Your task to perform on an android device: Open settings on Google Maps Image 0: 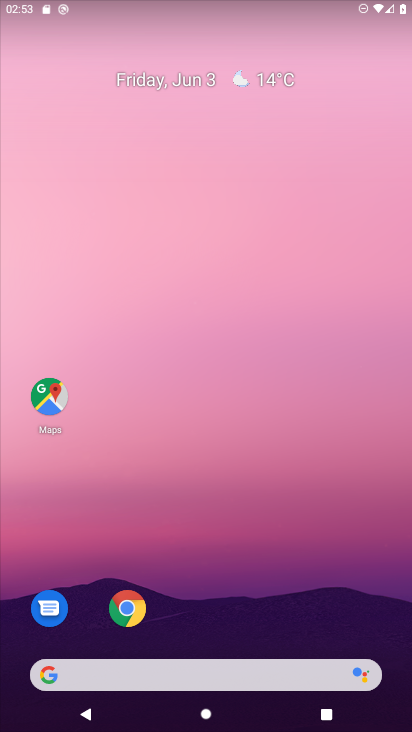
Step 0: click (48, 401)
Your task to perform on an android device: Open settings on Google Maps Image 1: 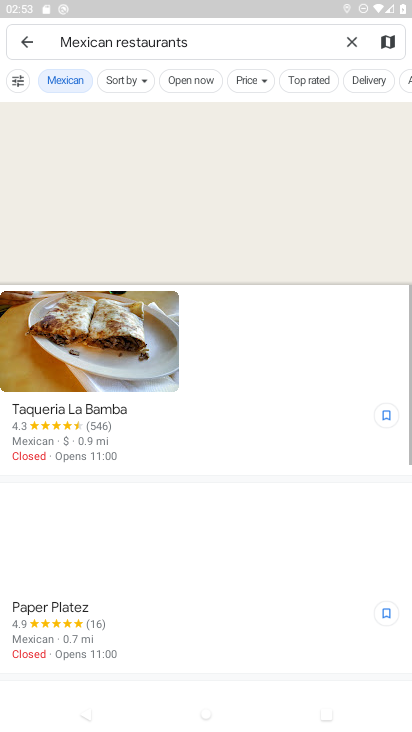
Step 1: click (25, 35)
Your task to perform on an android device: Open settings on Google Maps Image 2: 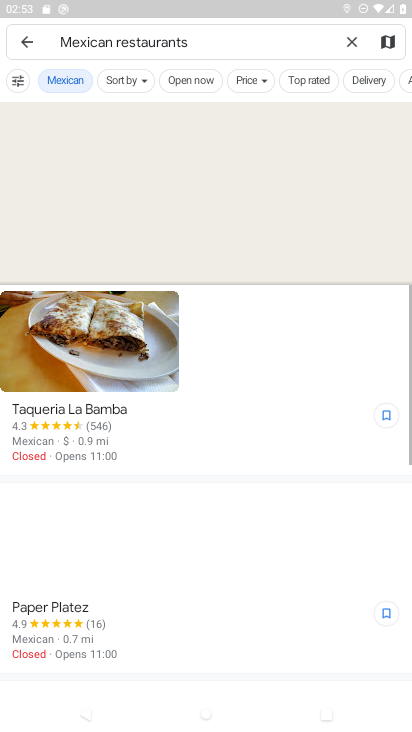
Step 2: click (26, 40)
Your task to perform on an android device: Open settings on Google Maps Image 3: 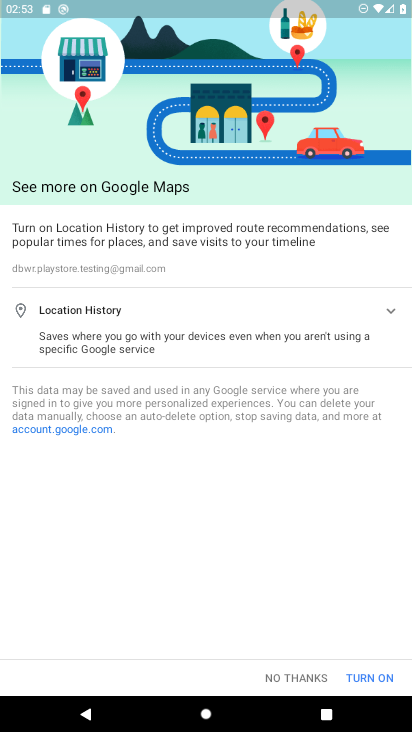
Step 3: click (304, 680)
Your task to perform on an android device: Open settings on Google Maps Image 4: 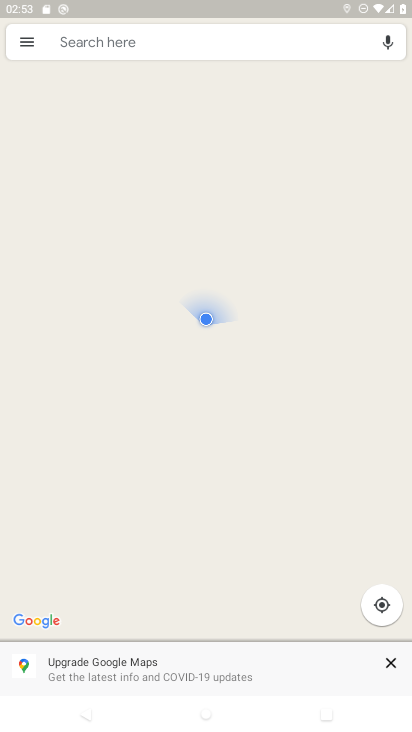
Step 4: click (21, 36)
Your task to perform on an android device: Open settings on Google Maps Image 5: 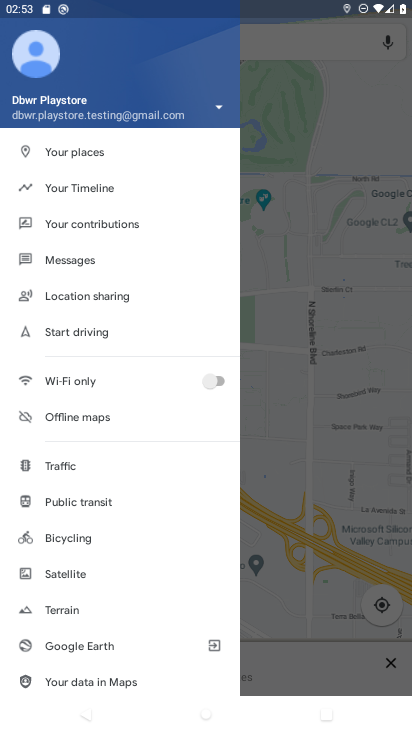
Step 5: drag from (100, 511) to (94, 183)
Your task to perform on an android device: Open settings on Google Maps Image 6: 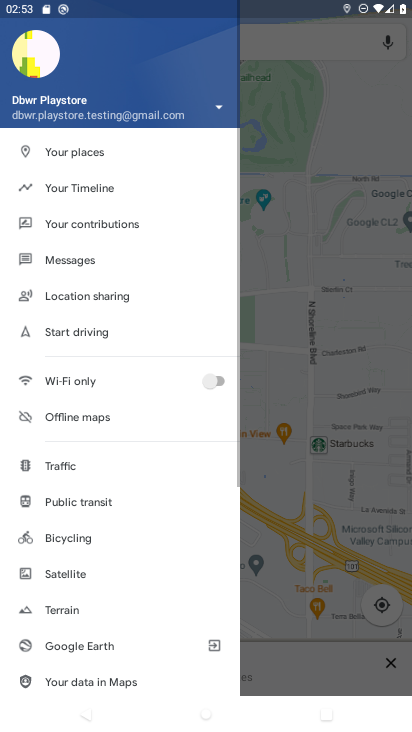
Step 6: drag from (47, 658) to (92, 313)
Your task to perform on an android device: Open settings on Google Maps Image 7: 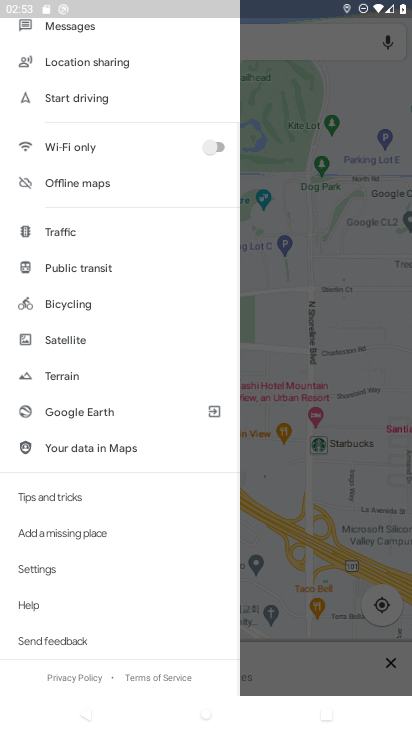
Step 7: click (42, 570)
Your task to perform on an android device: Open settings on Google Maps Image 8: 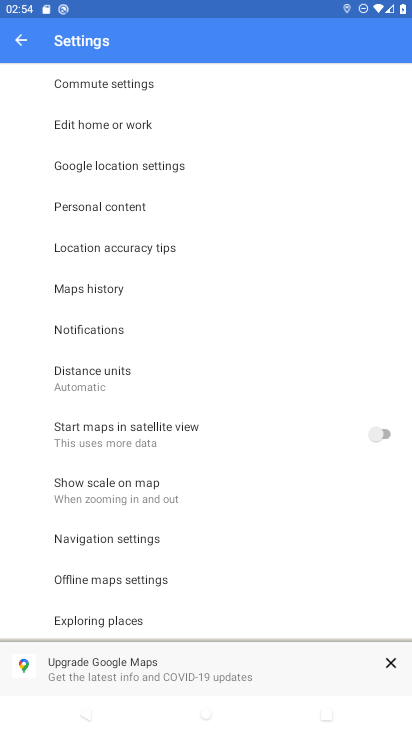
Step 8: task complete